Your task to perform on an android device: change timer sound Image 0: 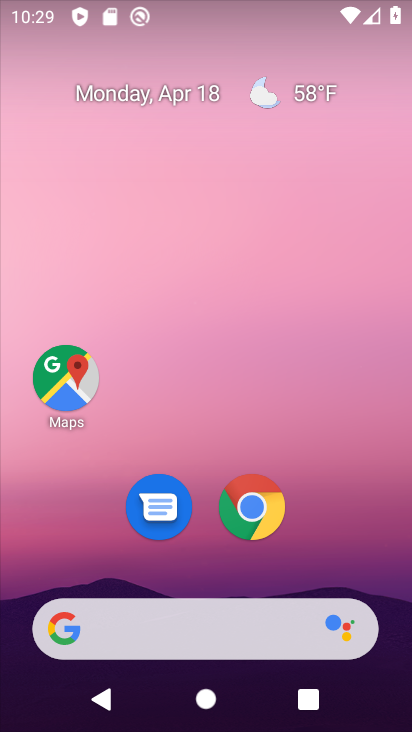
Step 0: drag from (217, 423) to (237, 37)
Your task to perform on an android device: change timer sound Image 1: 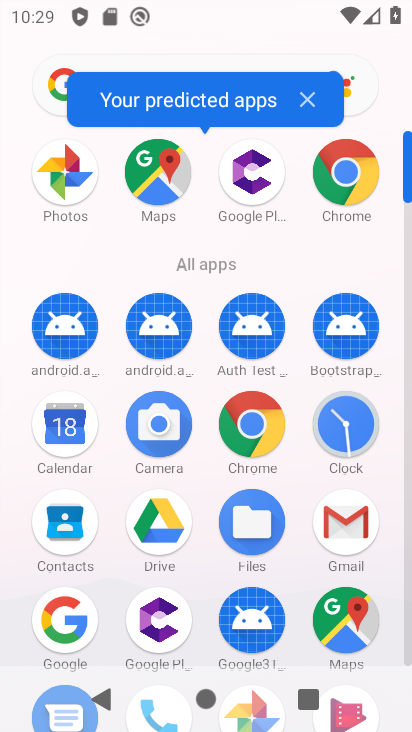
Step 1: click (362, 433)
Your task to perform on an android device: change timer sound Image 2: 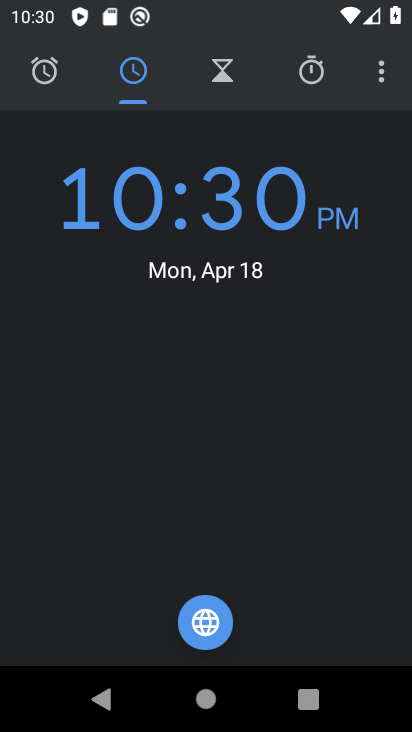
Step 2: click (376, 88)
Your task to perform on an android device: change timer sound Image 3: 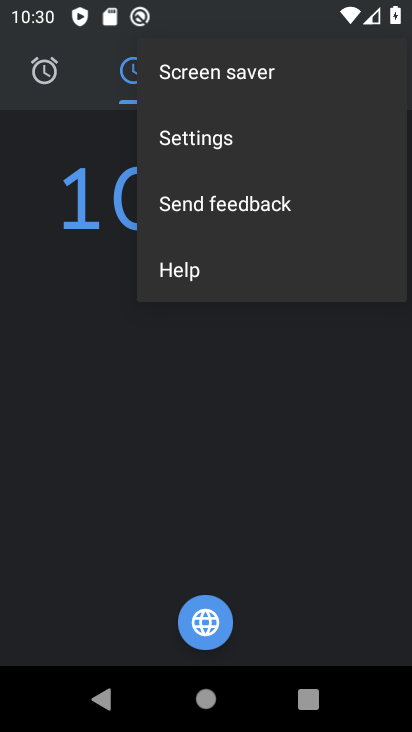
Step 3: click (237, 153)
Your task to perform on an android device: change timer sound Image 4: 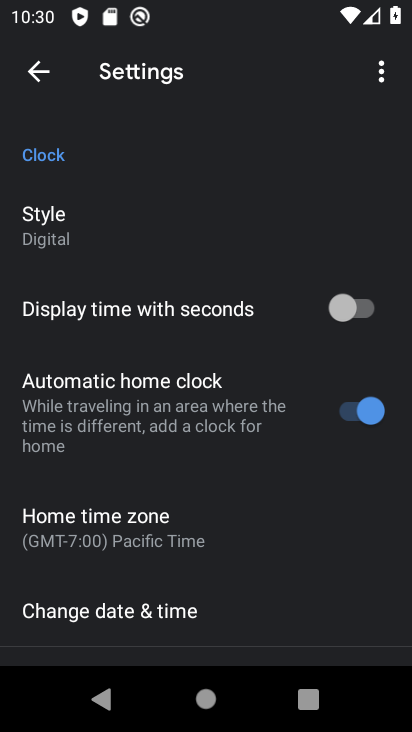
Step 4: drag from (114, 545) to (193, 61)
Your task to perform on an android device: change timer sound Image 5: 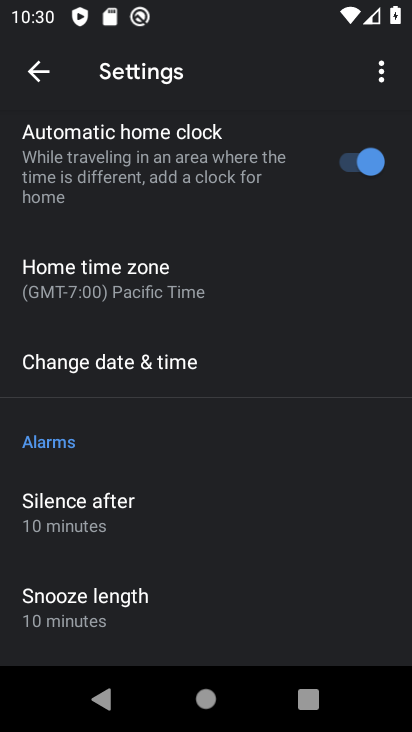
Step 5: drag from (109, 594) to (160, 48)
Your task to perform on an android device: change timer sound Image 6: 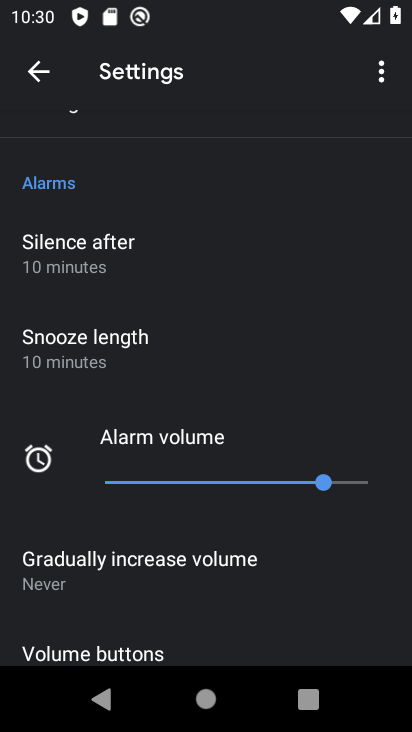
Step 6: drag from (102, 583) to (148, 237)
Your task to perform on an android device: change timer sound Image 7: 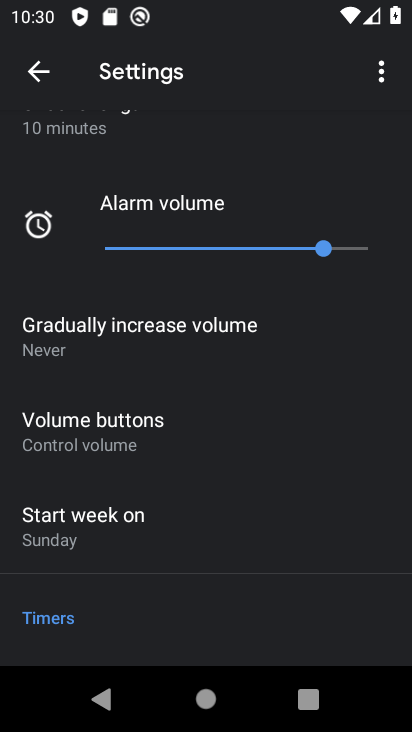
Step 7: drag from (99, 580) to (197, 68)
Your task to perform on an android device: change timer sound Image 8: 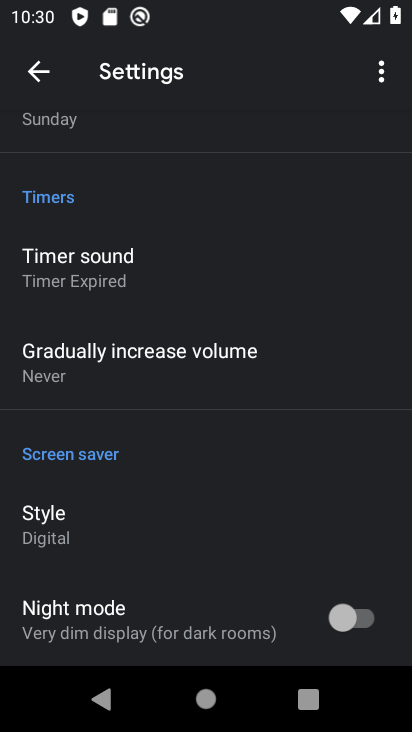
Step 8: click (129, 264)
Your task to perform on an android device: change timer sound Image 9: 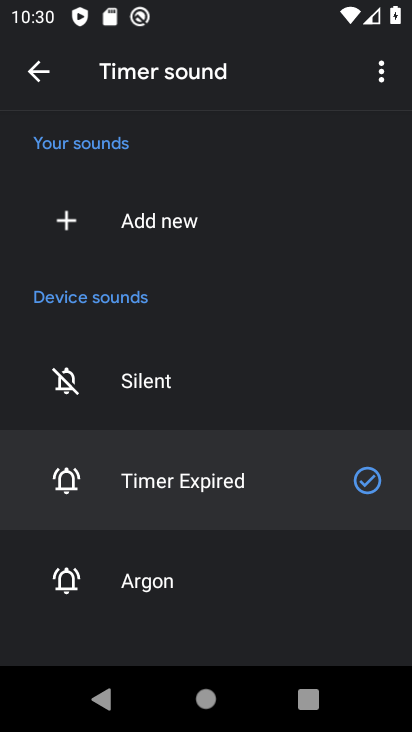
Step 9: click (138, 583)
Your task to perform on an android device: change timer sound Image 10: 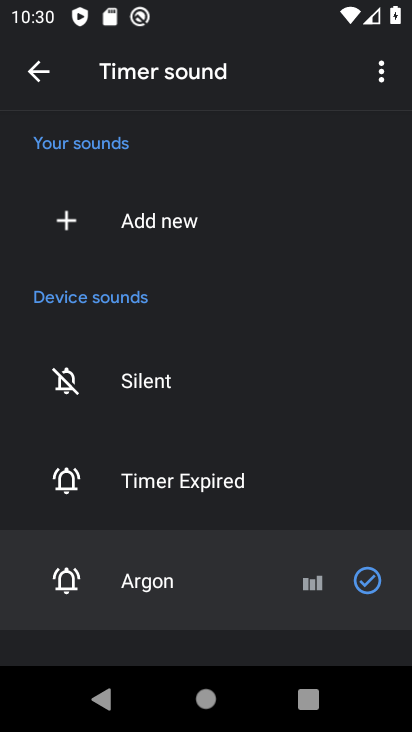
Step 10: task complete